Your task to perform on an android device: delete the emails in spam in the gmail app Image 0: 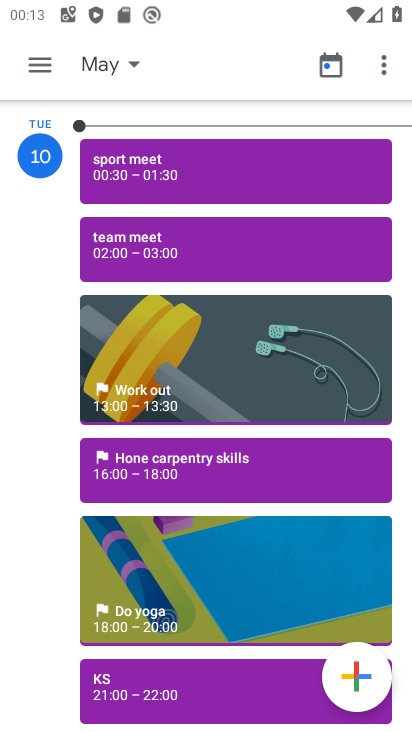
Step 0: press home button
Your task to perform on an android device: delete the emails in spam in the gmail app Image 1: 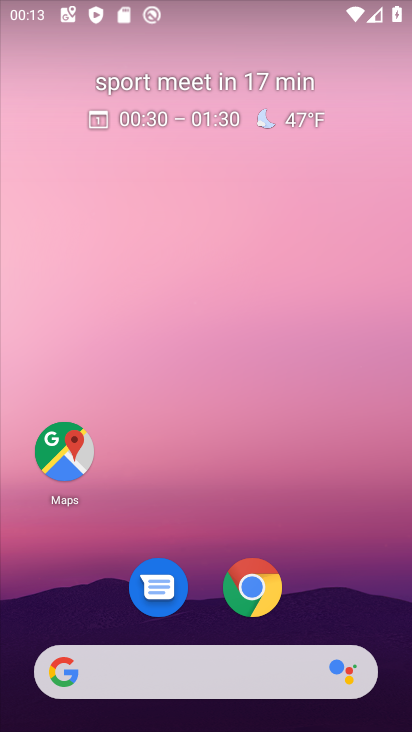
Step 1: click (368, 420)
Your task to perform on an android device: delete the emails in spam in the gmail app Image 2: 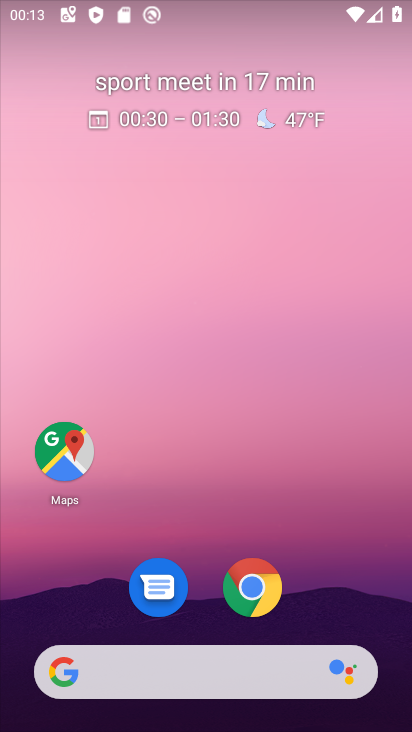
Step 2: drag from (398, 684) to (360, 229)
Your task to perform on an android device: delete the emails in spam in the gmail app Image 3: 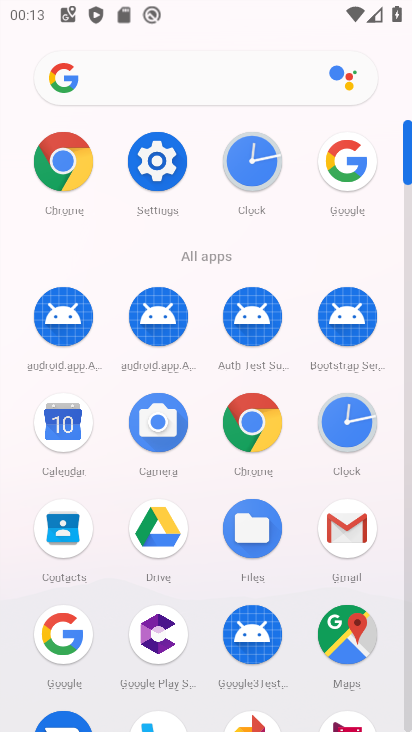
Step 3: click (349, 532)
Your task to perform on an android device: delete the emails in spam in the gmail app Image 4: 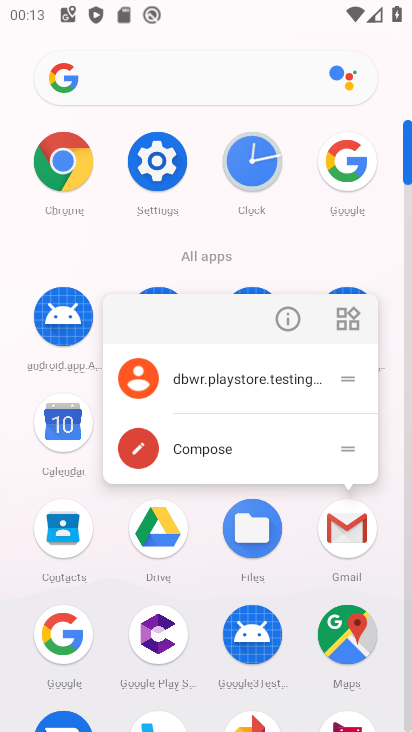
Step 4: click (349, 534)
Your task to perform on an android device: delete the emails in spam in the gmail app Image 5: 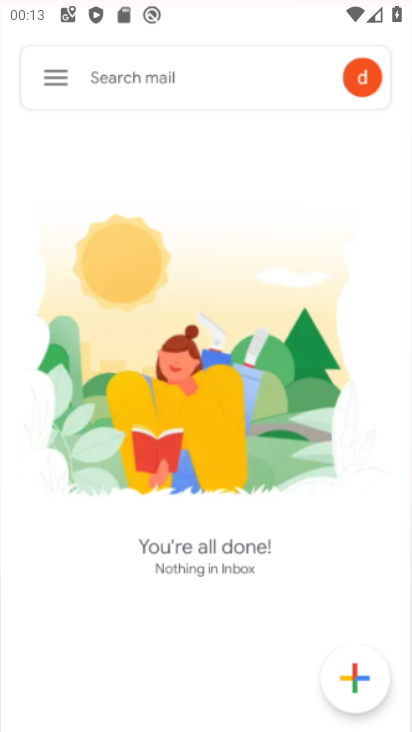
Step 5: click (349, 534)
Your task to perform on an android device: delete the emails in spam in the gmail app Image 6: 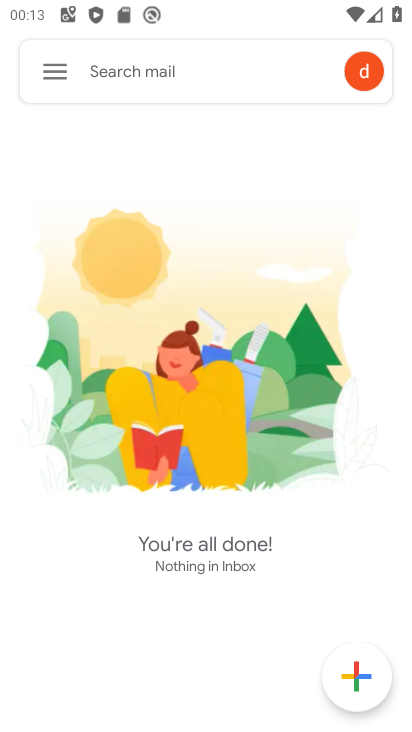
Step 6: click (35, 52)
Your task to perform on an android device: delete the emails in spam in the gmail app Image 7: 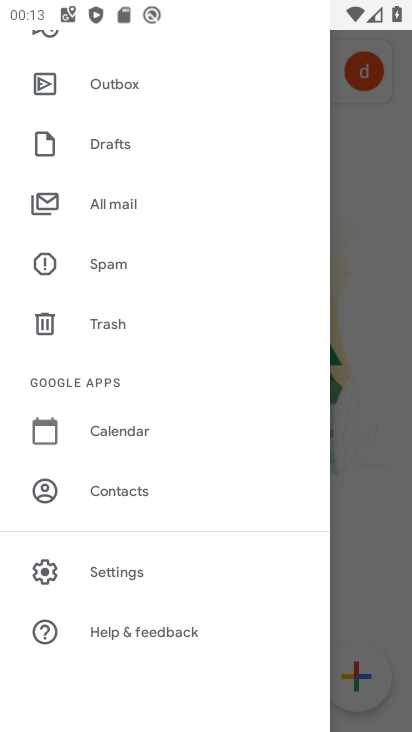
Step 7: click (93, 266)
Your task to perform on an android device: delete the emails in spam in the gmail app Image 8: 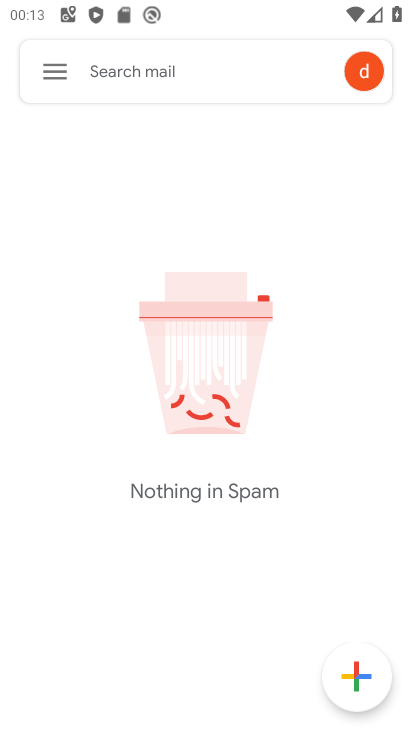
Step 8: task complete